Your task to perform on an android device: Go to calendar. Show me events next week Image 0: 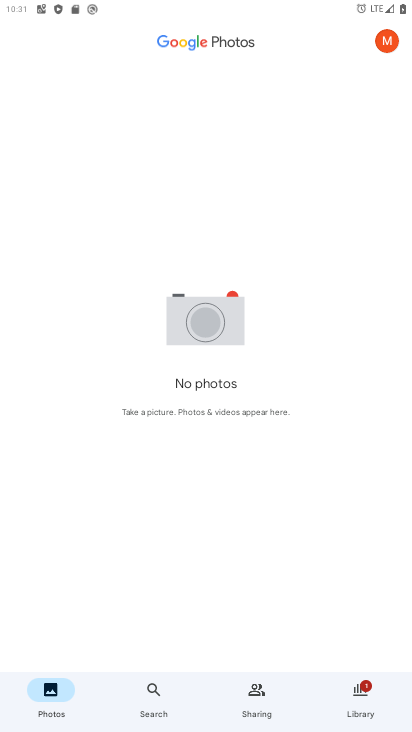
Step 0: press home button
Your task to perform on an android device: Go to calendar. Show me events next week Image 1: 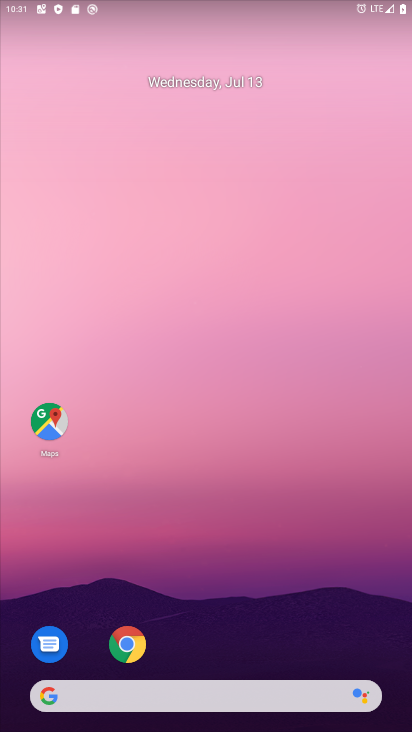
Step 1: drag from (379, 730) to (229, 283)
Your task to perform on an android device: Go to calendar. Show me events next week Image 2: 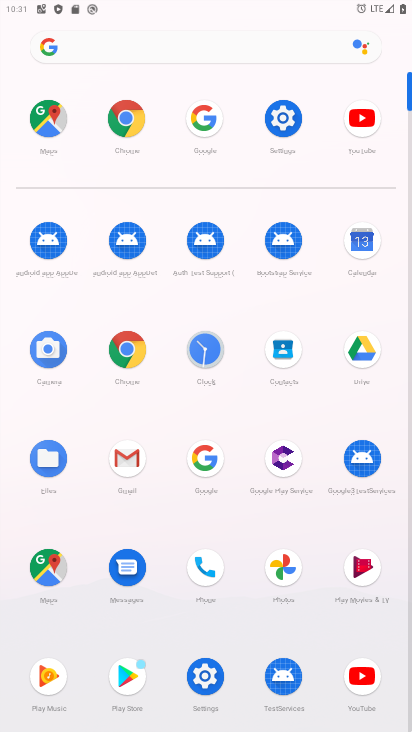
Step 2: click (362, 245)
Your task to perform on an android device: Go to calendar. Show me events next week Image 3: 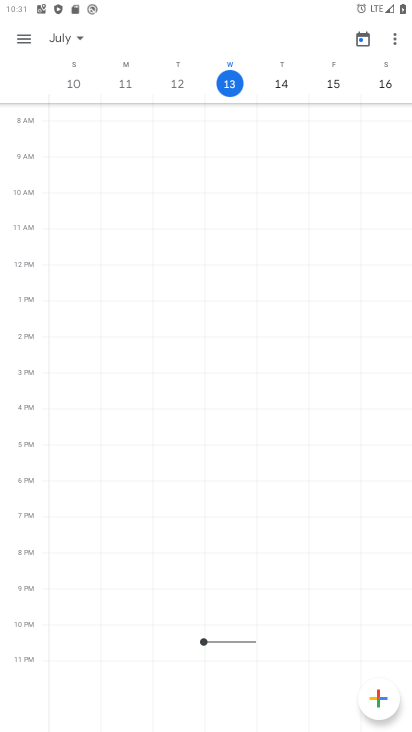
Step 3: drag from (387, 81) to (189, 81)
Your task to perform on an android device: Go to calendar. Show me events next week Image 4: 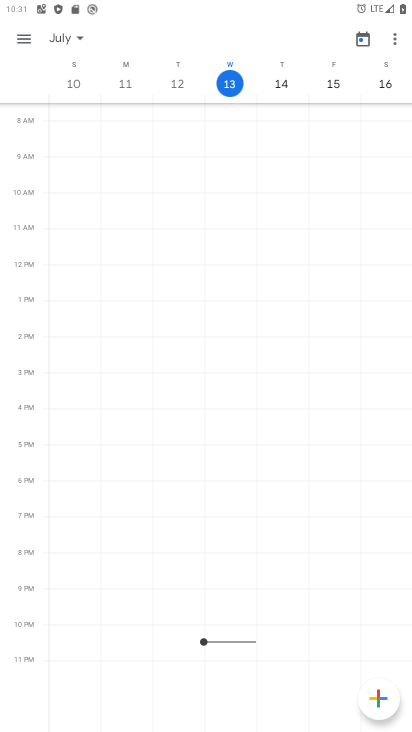
Step 4: click (232, 76)
Your task to perform on an android device: Go to calendar. Show me events next week Image 5: 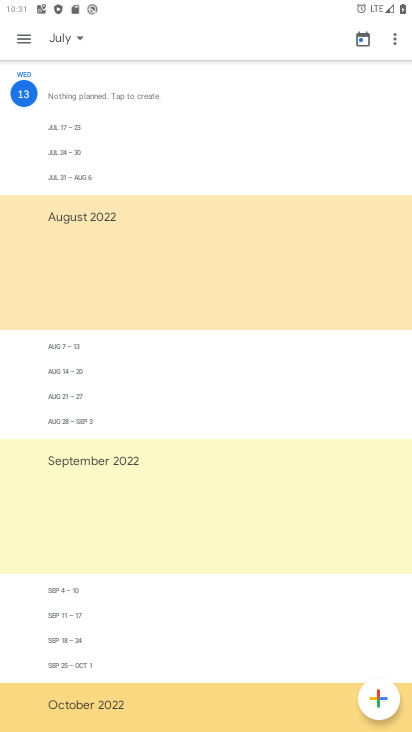
Step 5: task complete